Your task to perform on an android device: delete location history Image 0: 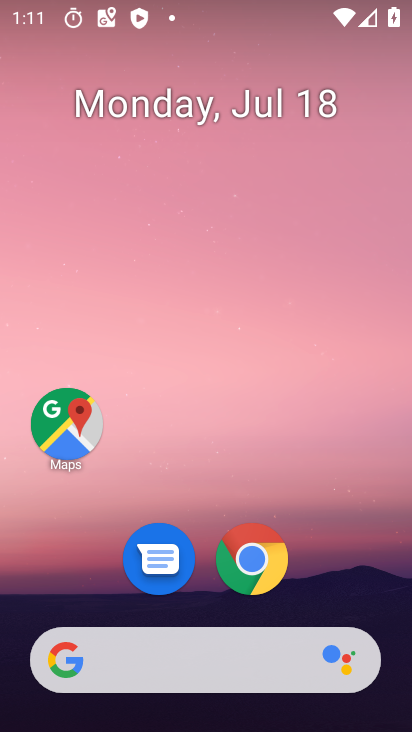
Step 0: click (62, 415)
Your task to perform on an android device: delete location history Image 1: 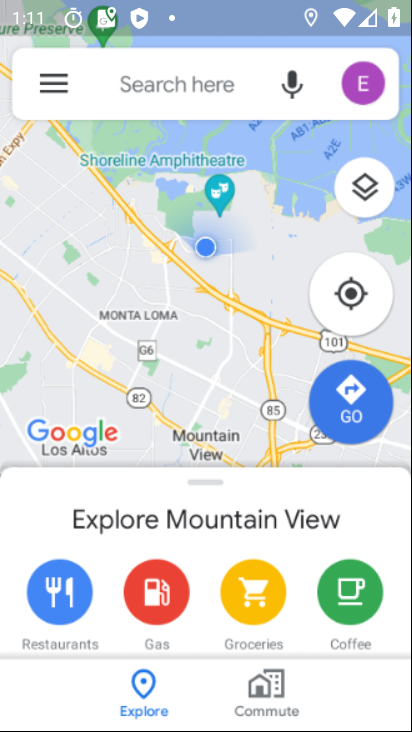
Step 1: click (64, 75)
Your task to perform on an android device: delete location history Image 2: 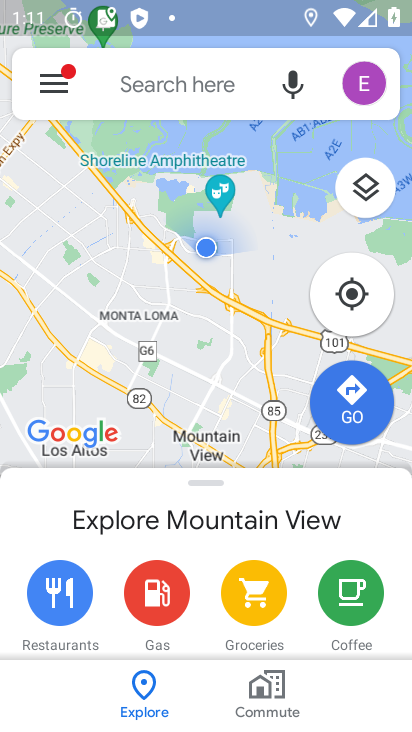
Step 2: click (61, 81)
Your task to perform on an android device: delete location history Image 3: 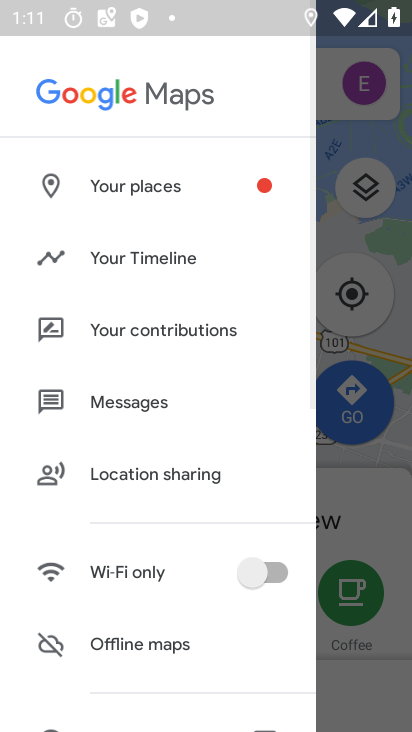
Step 3: click (150, 245)
Your task to perform on an android device: delete location history Image 4: 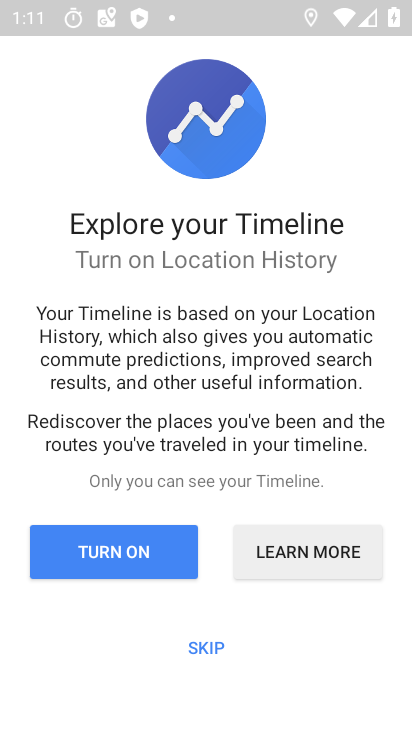
Step 4: click (199, 646)
Your task to perform on an android device: delete location history Image 5: 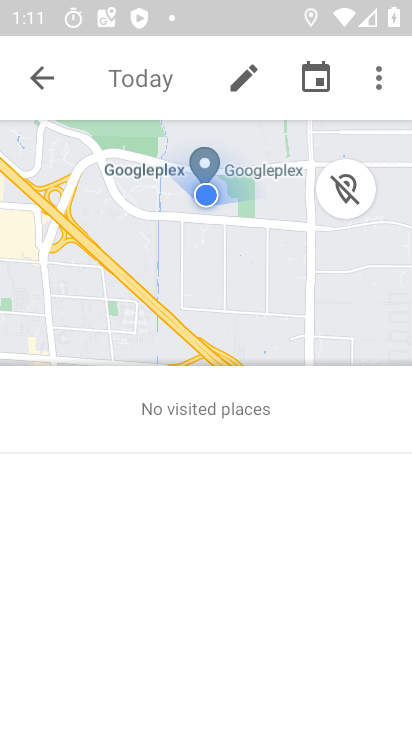
Step 5: click (382, 75)
Your task to perform on an android device: delete location history Image 6: 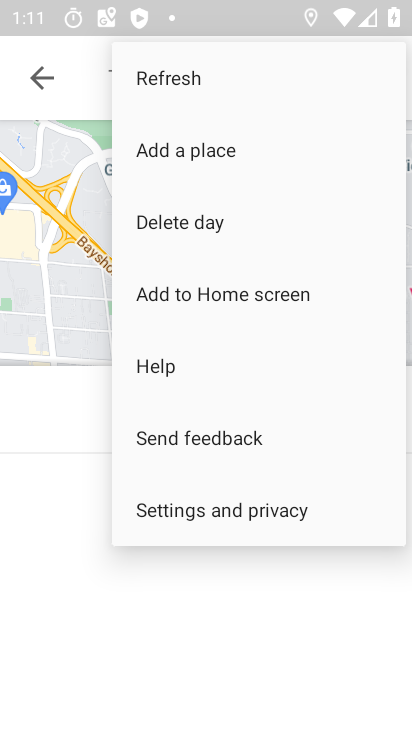
Step 6: click (211, 516)
Your task to perform on an android device: delete location history Image 7: 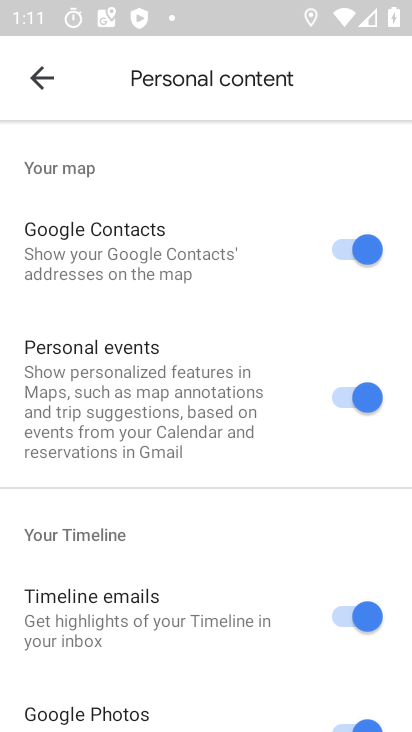
Step 7: drag from (131, 680) to (248, 137)
Your task to perform on an android device: delete location history Image 8: 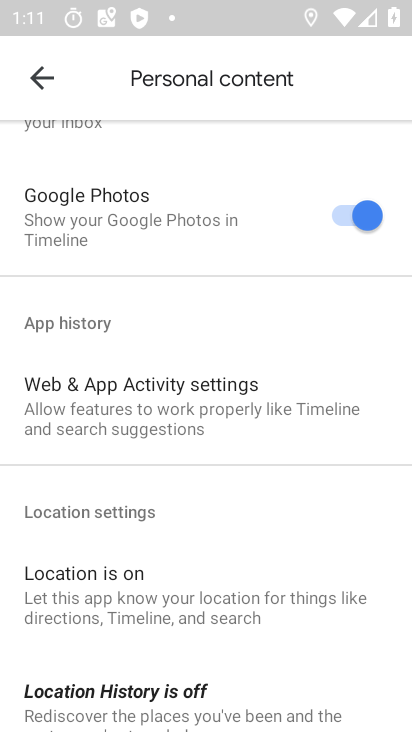
Step 8: drag from (207, 677) to (282, 173)
Your task to perform on an android device: delete location history Image 9: 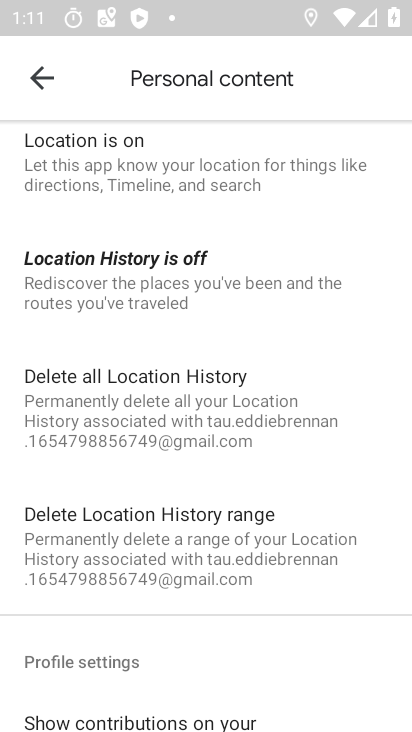
Step 9: click (194, 388)
Your task to perform on an android device: delete location history Image 10: 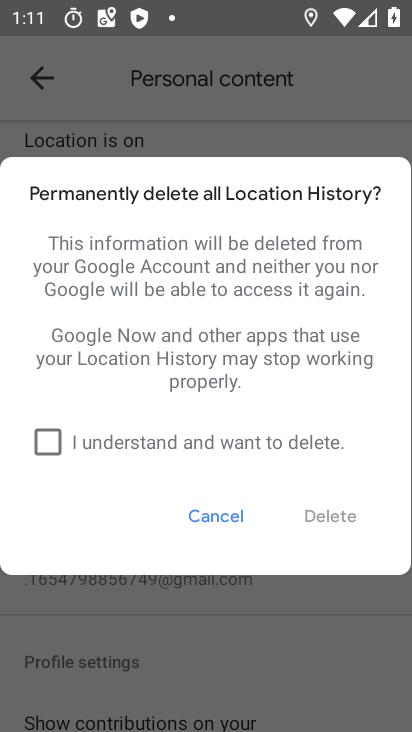
Step 10: click (52, 432)
Your task to perform on an android device: delete location history Image 11: 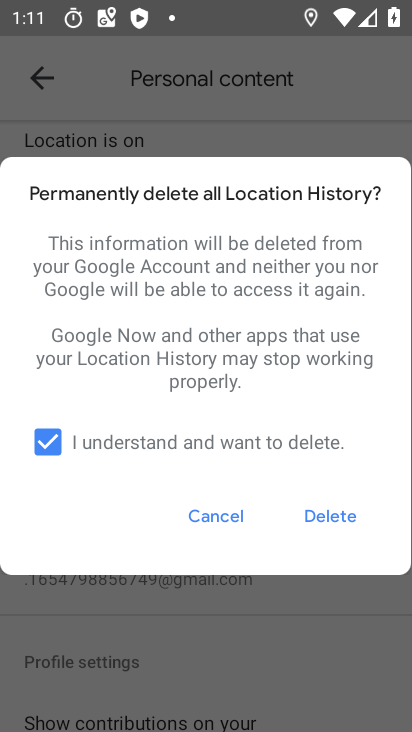
Step 11: click (324, 507)
Your task to perform on an android device: delete location history Image 12: 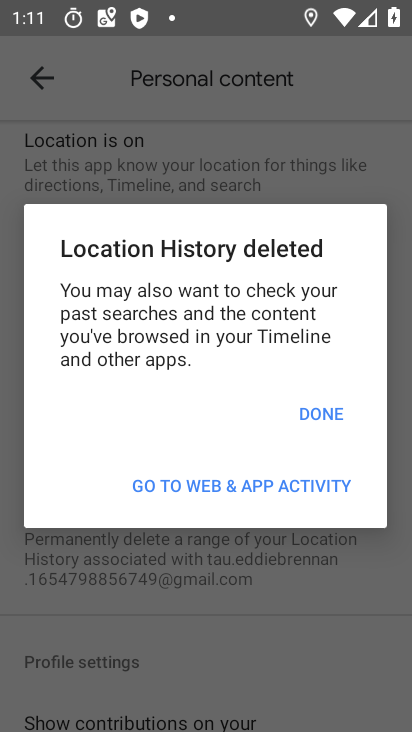
Step 12: click (341, 423)
Your task to perform on an android device: delete location history Image 13: 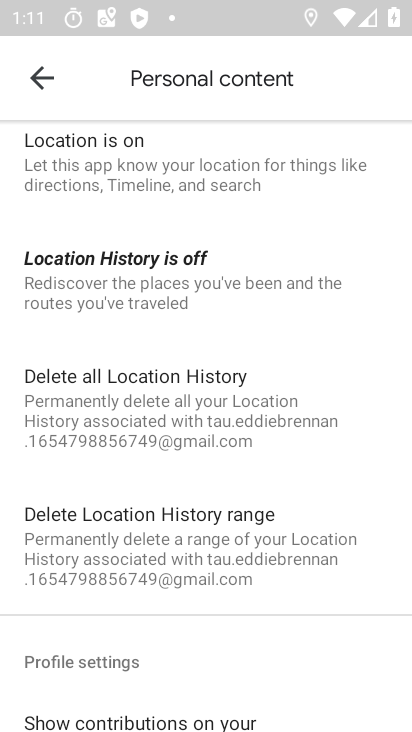
Step 13: task complete